Your task to perform on an android device: turn on location history Image 0: 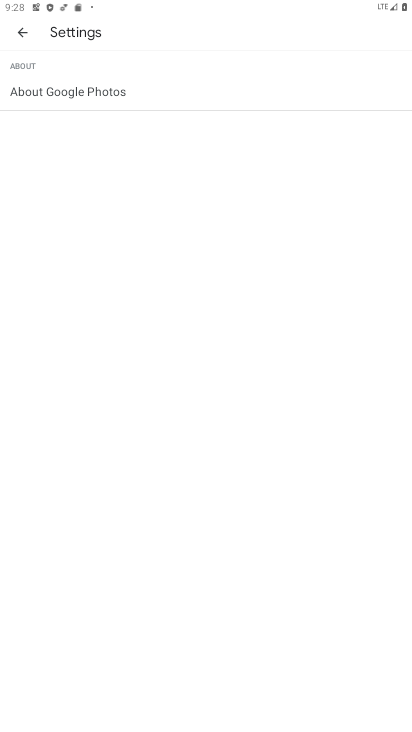
Step 0: press home button
Your task to perform on an android device: turn on location history Image 1: 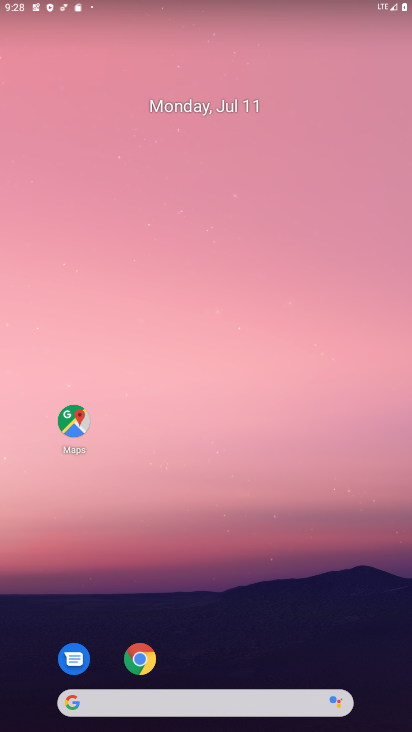
Step 1: drag from (216, 729) to (217, 43)
Your task to perform on an android device: turn on location history Image 2: 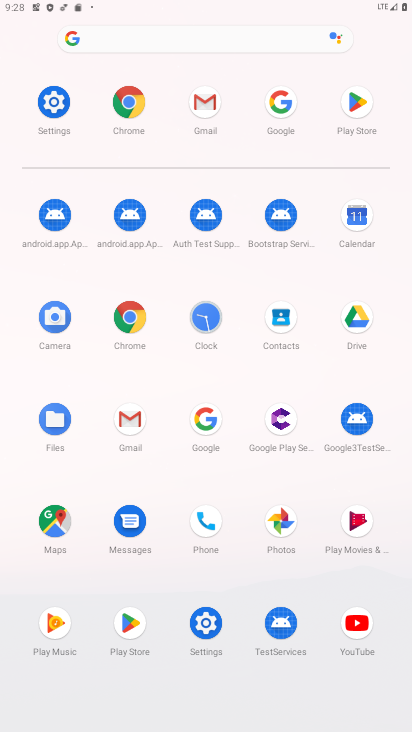
Step 2: click (62, 107)
Your task to perform on an android device: turn on location history Image 3: 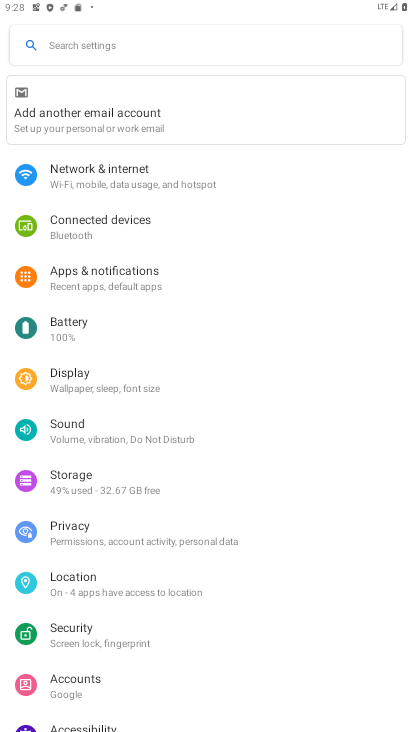
Step 3: click (82, 589)
Your task to perform on an android device: turn on location history Image 4: 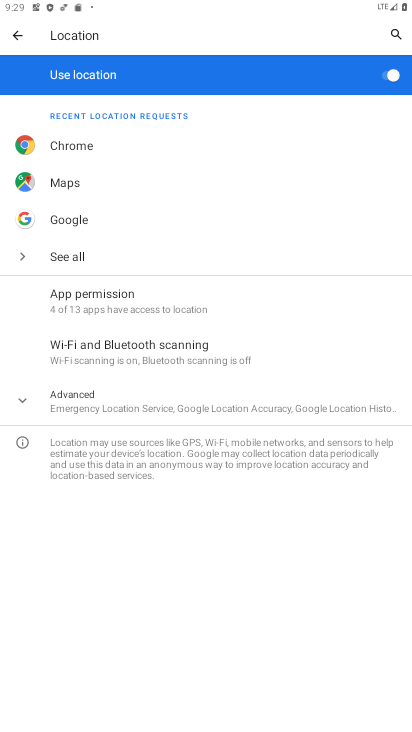
Step 4: click (90, 401)
Your task to perform on an android device: turn on location history Image 5: 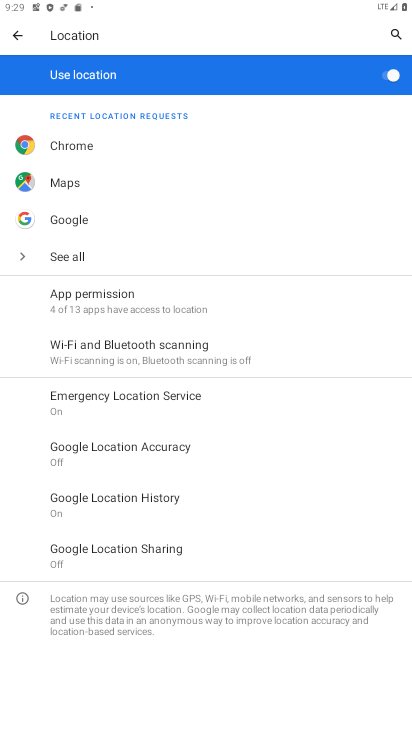
Step 5: click (117, 497)
Your task to perform on an android device: turn on location history Image 6: 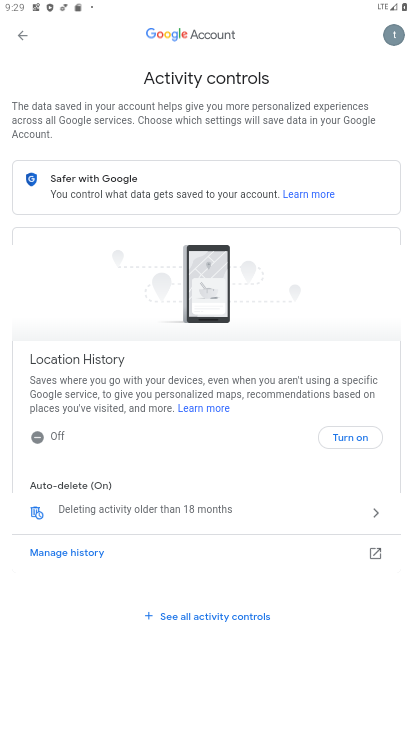
Step 6: click (342, 439)
Your task to perform on an android device: turn on location history Image 7: 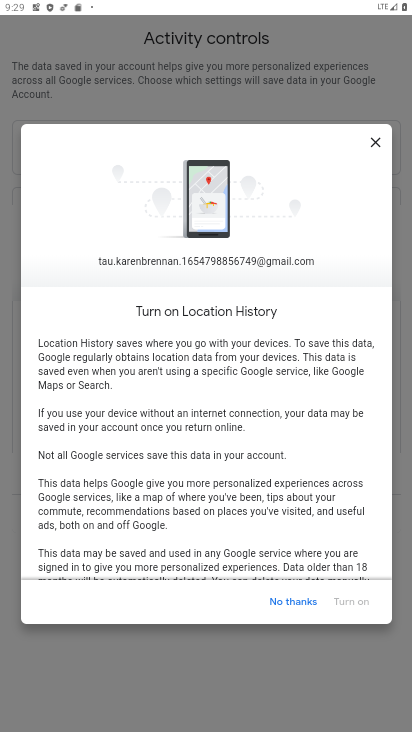
Step 7: drag from (234, 562) to (232, 284)
Your task to perform on an android device: turn on location history Image 8: 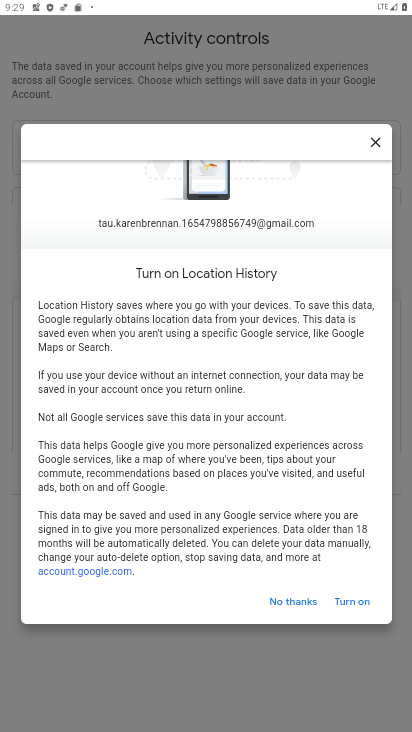
Step 8: click (357, 599)
Your task to perform on an android device: turn on location history Image 9: 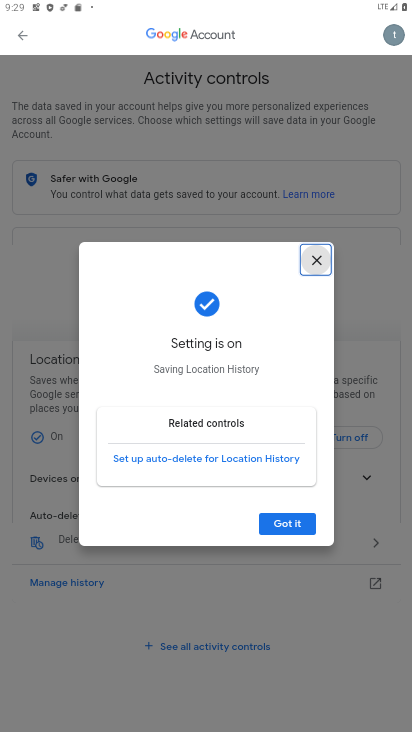
Step 9: click (301, 522)
Your task to perform on an android device: turn on location history Image 10: 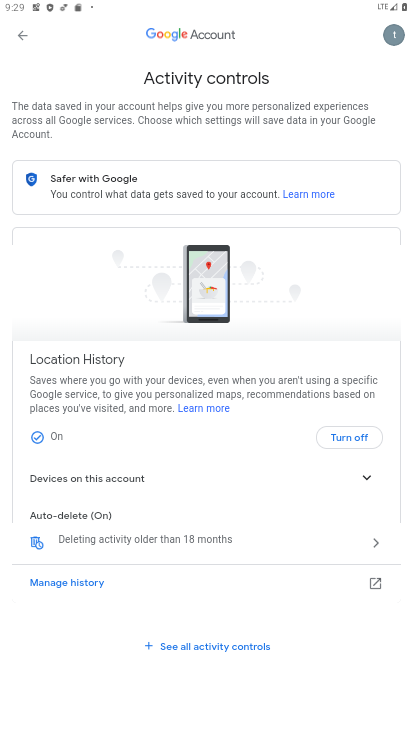
Step 10: task complete